Your task to perform on an android device: Clear the cart on amazon.com. Add razer blade to the cart on amazon.com Image 0: 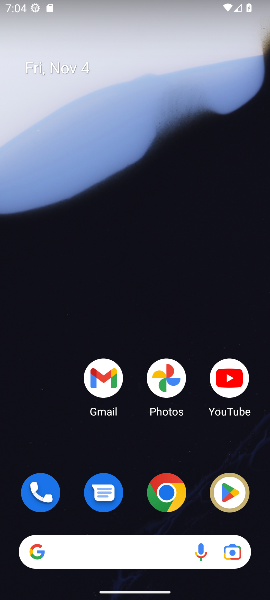
Step 0: drag from (141, 466) to (138, 77)
Your task to perform on an android device: Clear the cart on amazon.com. Add razer blade to the cart on amazon.com Image 1: 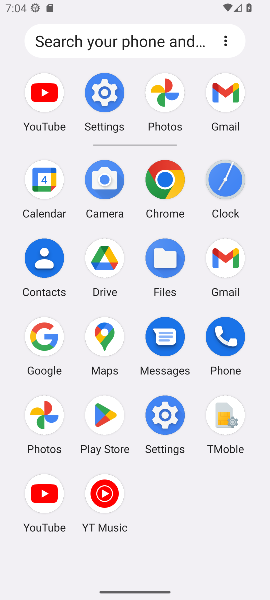
Step 1: click (167, 180)
Your task to perform on an android device: Clear the cart on amazon.com. Add razer blade to the cart on amazon.com Image 2: 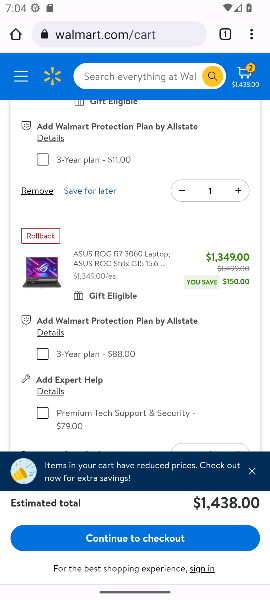
Step 2: click (139, 37)
Your task to perform on an android device: Clear the cart on amazon.com. Add razer blade to the cart on amazon.com Image 3: 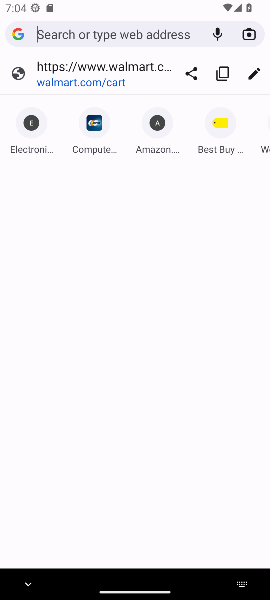
Step 3: type "amazon.com"
Your task to perform on an android device: Clear the cart on amazon.com. Add razer blade to the cart on amazon.com Image 4: 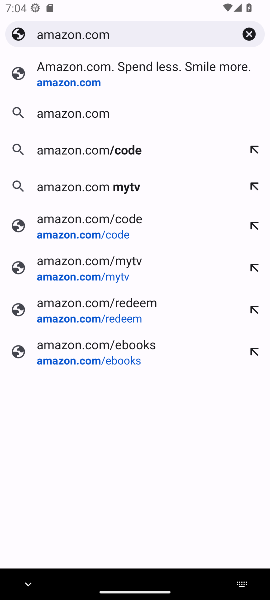
Step 4: press enter
Your task to perform on an android device: Clear the cart on amazon.com. Add razer blade to the cart on amazon.com Image 5: 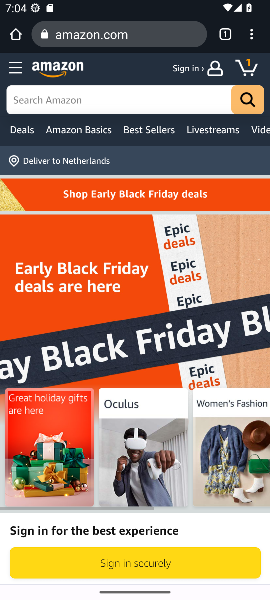
Step 5: click (246, 68)
Your task to perform on an android device: Clear the cart on amazon.com. Add razer blade to the cart on amazon.com Image 6: 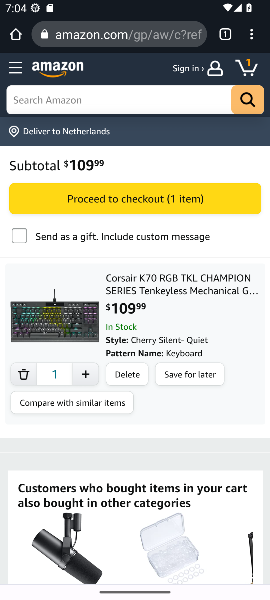
Step 6: click (19, 368)
Your task to perform on an android device: Clear the cart on amazon.com. Add razer blade to the cart on amazon.com Image 7: 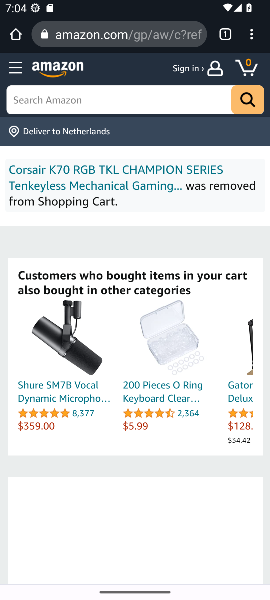
Step 7: click (139, 108)
Your task to perform on an android device: Clear the cart on amazon.com. Add razer blade to the cart on amazon.com Image 8: 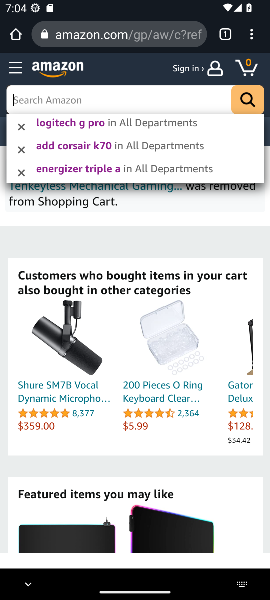
Step 8: type "razer blade"
Your task to perform on an android device: Clear the cart on amazon.com. Add razer blade to the cart on amazon.com Image 9: 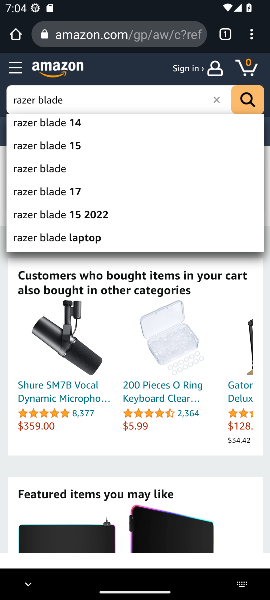
Step 9: press enter
Your task to perform on an android device: Clear the cart on amazon.com. Add razer blade to the cart on amazon.com Image 10: 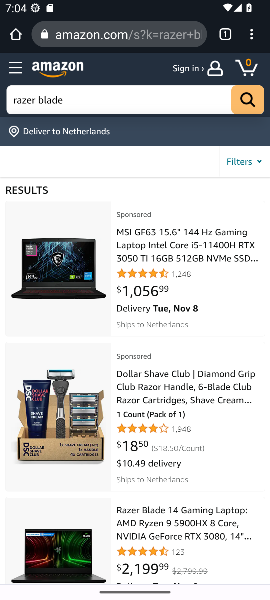
Step 10: drag from (141, 318) to (146, 126)
Your task to perform on an android device: Clear the cart on amazon.com. Add razer blade to the cart on amazon.com Image 11: 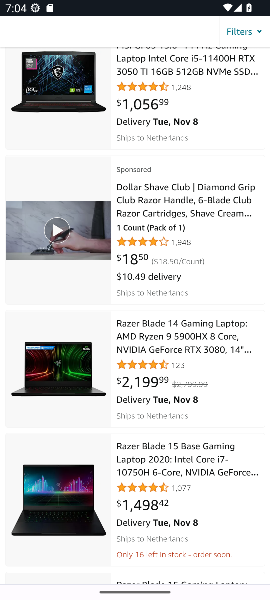
Step 11: click (176, 339)
Your task to perform on an android device: Clear the cart on amazon.com. Add razer blade to the cart on amazon.com Image 12: 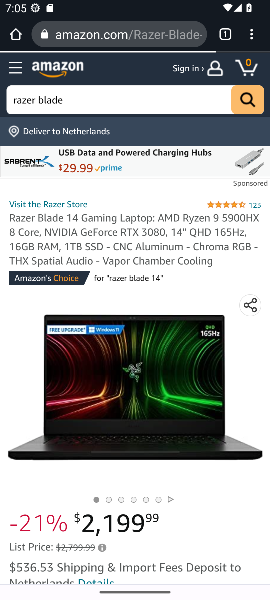
Step 12: drag from (158, 527) to (177, 236)
Your task to perform on an android device: Clear the cart on amazon.com. Add razer blade to the cart on amazon.com Image 13: 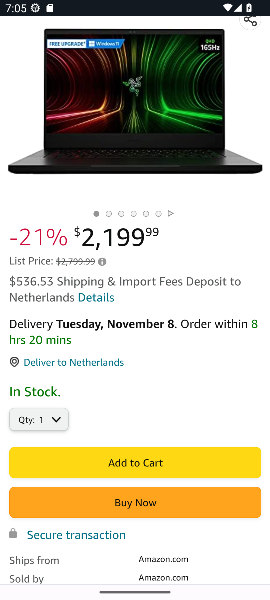
Step 13: click (145, 456)
Your task to perform on an android device: Clear the cart on amazon.com. Add razer blade to the cart on amazon.com Image 14: 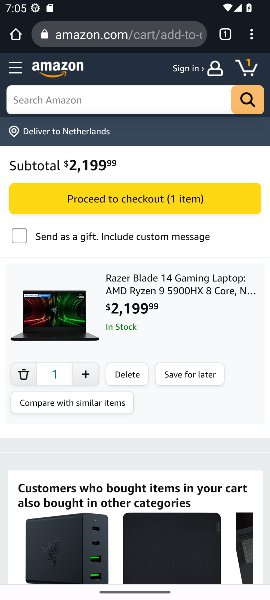
Step 14: task complete